Your task to perform on an android device: What's the weather going to be this weekend? Image 0: 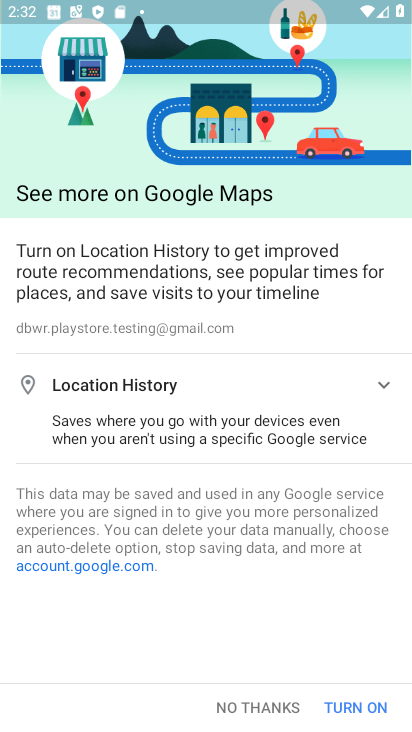
Step 0: press home button
Your task to perform on an android device: What's the weather going to be this weekend? Image 1: 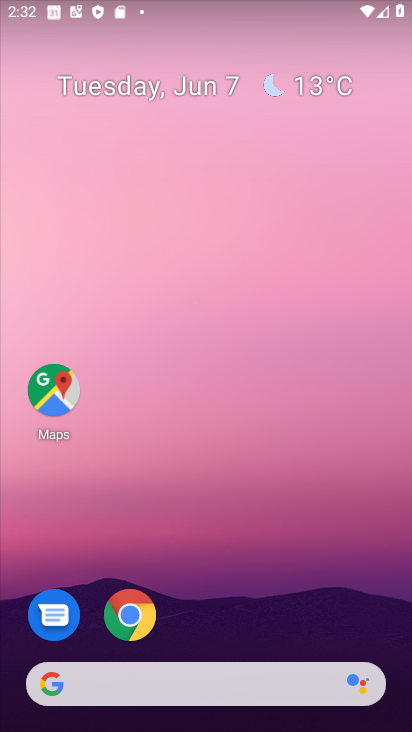
Step 1: click (318, 82)
Your task to perform on an android device: What's the weather going to be this weekend? Image 2: 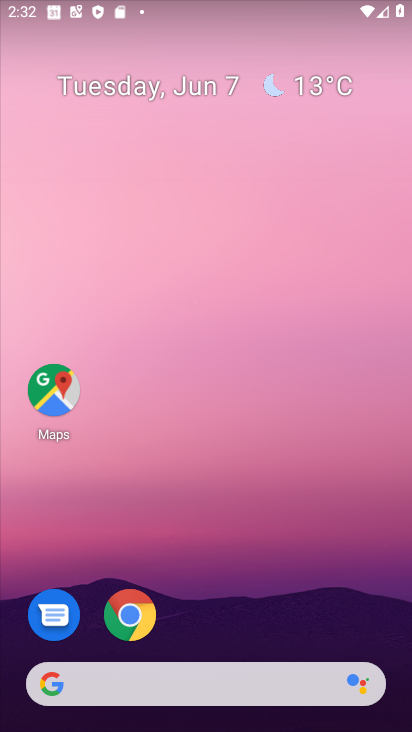
Step 2: click (282, 96)
Your task to perform on an android device: What's the weather going to be this weekend? Image 3: 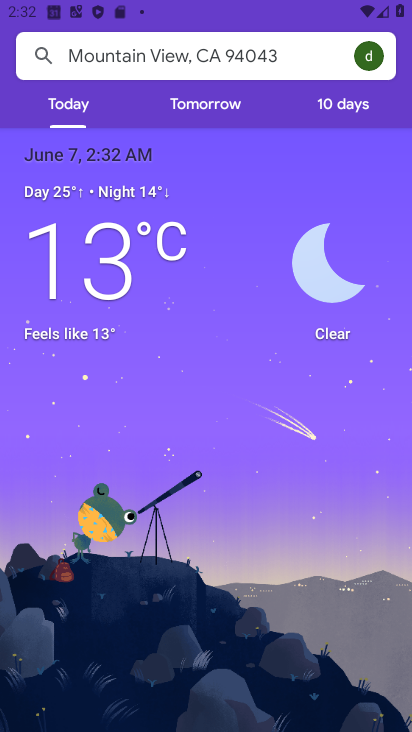
Step 3: click (327, 91)
Your task to perform on an android device: What's the weather going to be this weekend? Image 4: 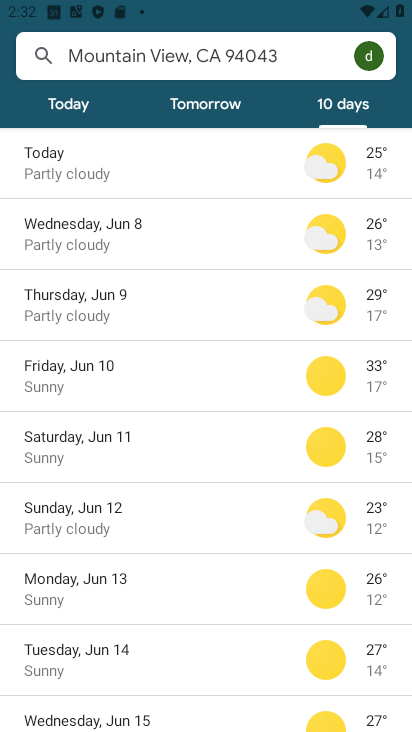
Step 4: task complete